Your task to perform on an android device: Is it going to rain tomorrow? Image 0: 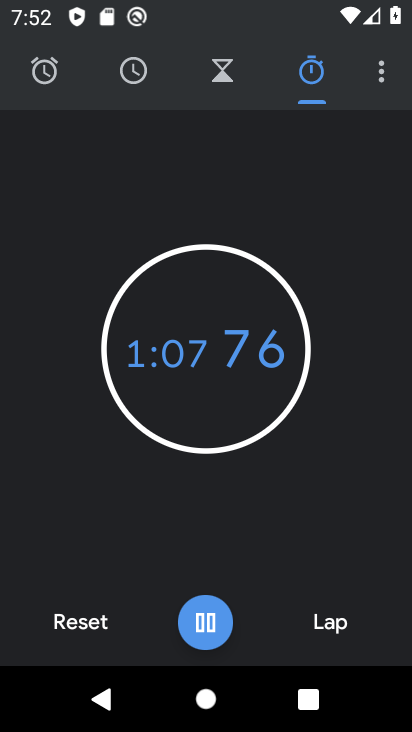
Step 0: press back button
Your task to perform on an android device: Is it going to rain tomorrow? Image 1: 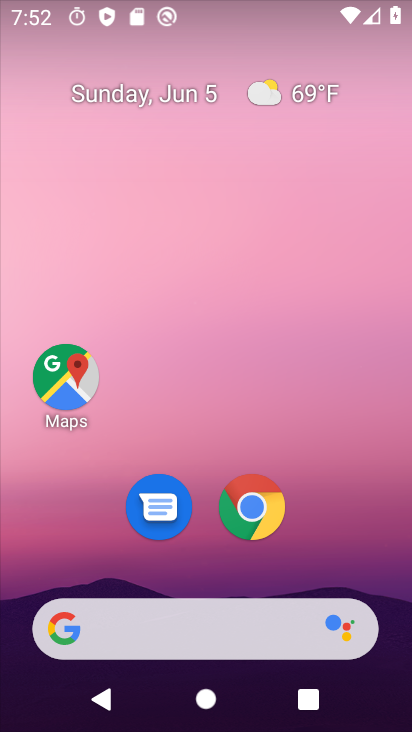
Step 1: drag from (334, 556) to (252, 24)
Your task to perform on an android device: Is it going to rain tomorrow? Image 2: 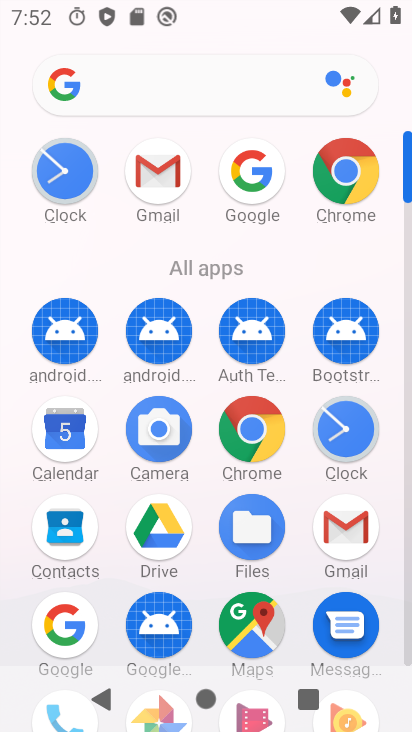
Step 2: click (348, 166)
Your task to perform on an android device: Is it going to rain tomorrow? Image 3: 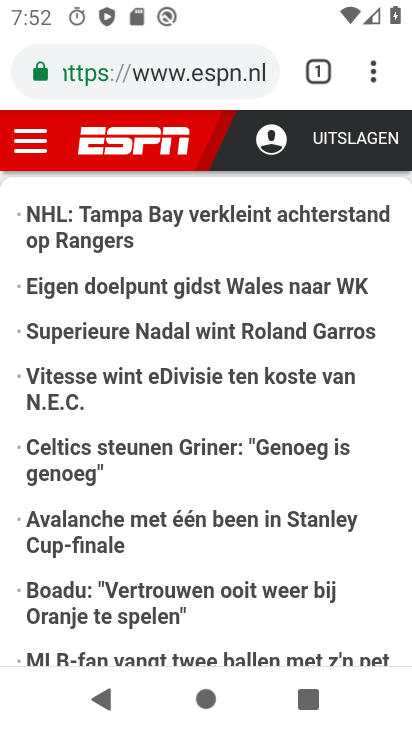
Step 3: click (194, 53)
Your task to perform on an android device: Is it going to rain tomorrow? Image 4: 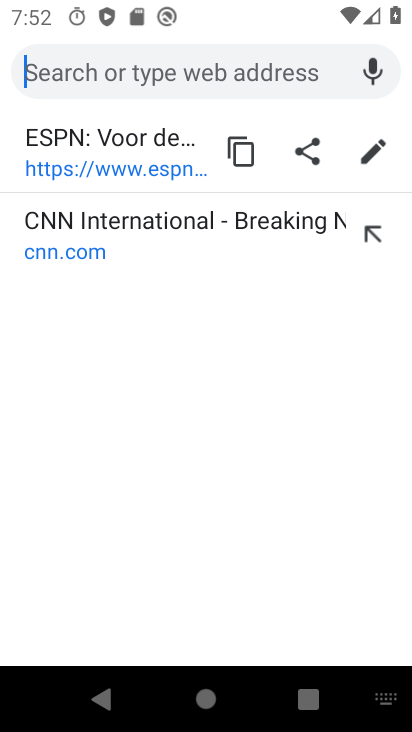
Step 4: type "Is it going to rain tomorrow?"
Your task to perform on an android device: Is it going to rain tomorrow? Image 5: 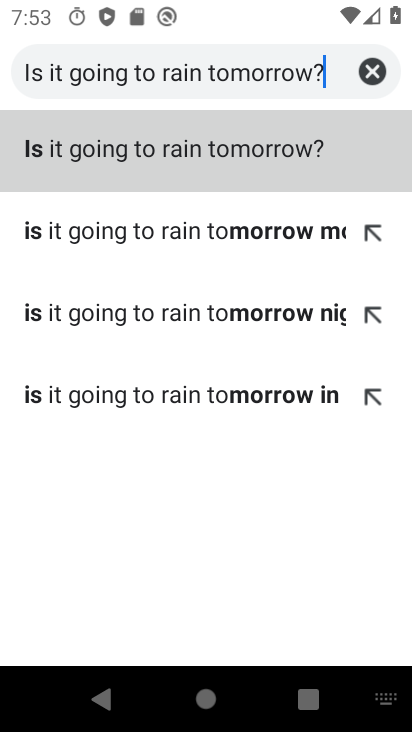
Step 5: click (139, 159)
Your task to perform on an android device: Is it going to rain tomorrow? Image 6: 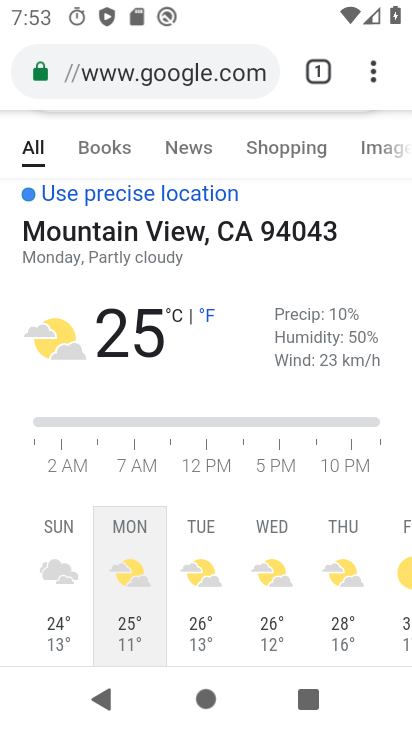
Step 6: task complete